Your task to perform on an android device: Open the map Image 0: 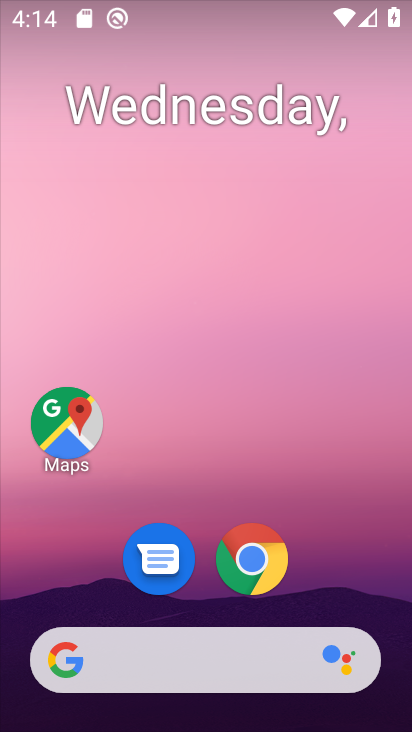
Step 0: drag from (118, 596) to (236, 108)
Your task to perform on an android device: Open the map Image 1: 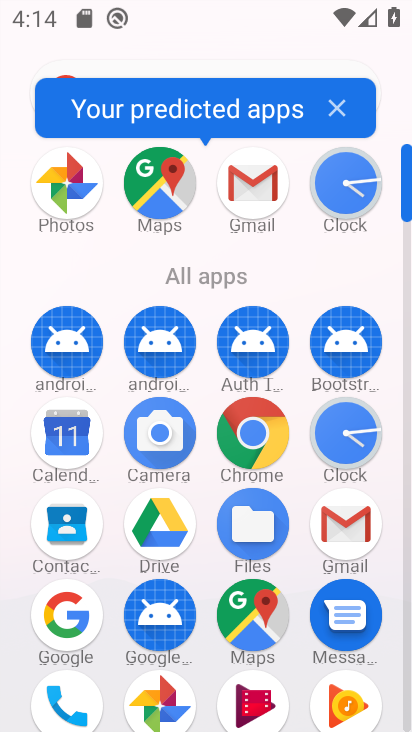
Step 1: click (246, 620)
Your task to perform on an android device: Open the map Image 2: 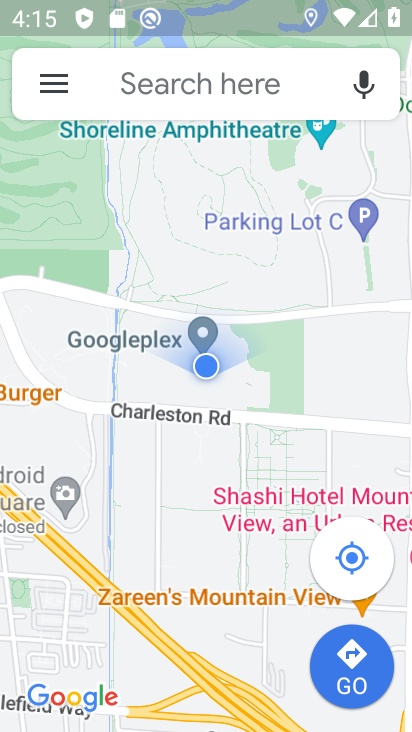
Step 2: task complete